Your task to perform on an android device: Go to notification settings Image 0: 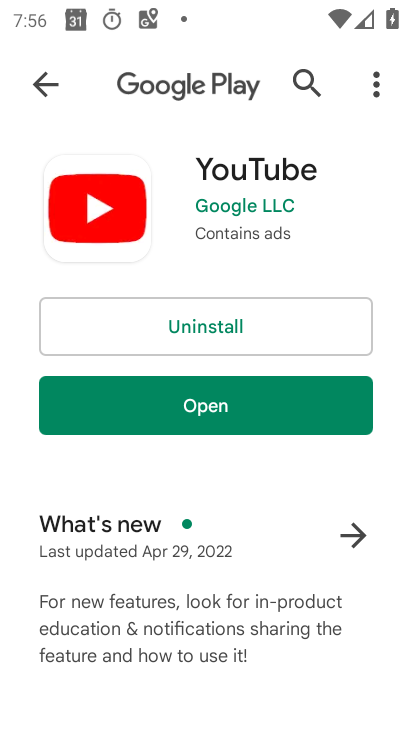
Step 0: press home button
Your task to perform on an android device: Go to notification settings Image 1: 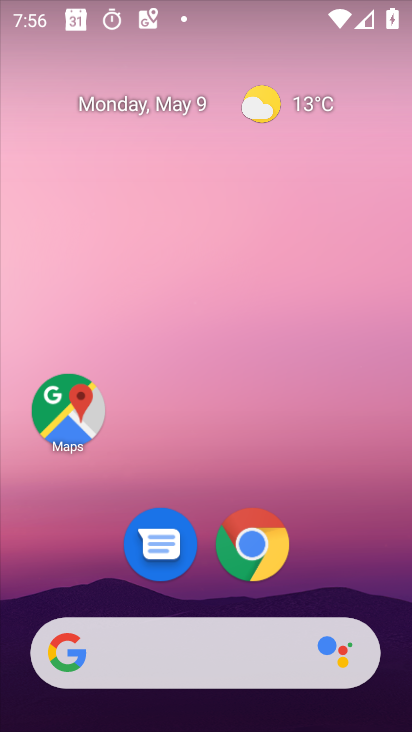
Step 1: drag from (340, 486) to (286, 41)
Your task to perform on an android device: Go to notification settings Image 2: 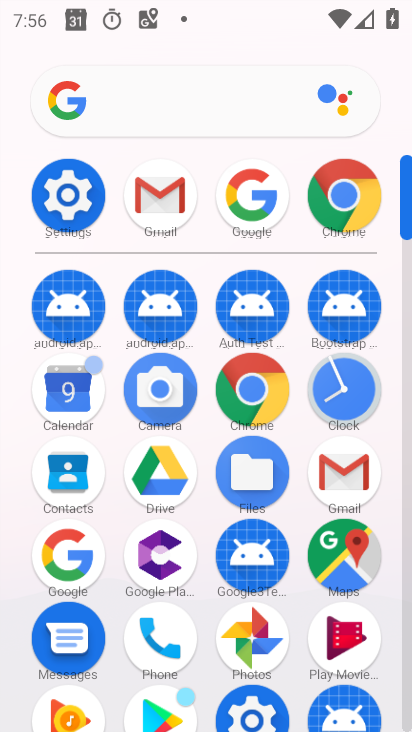
Step 2: click (84, 198)
Your task to perform on an android device: Go to notification settings Image 3: 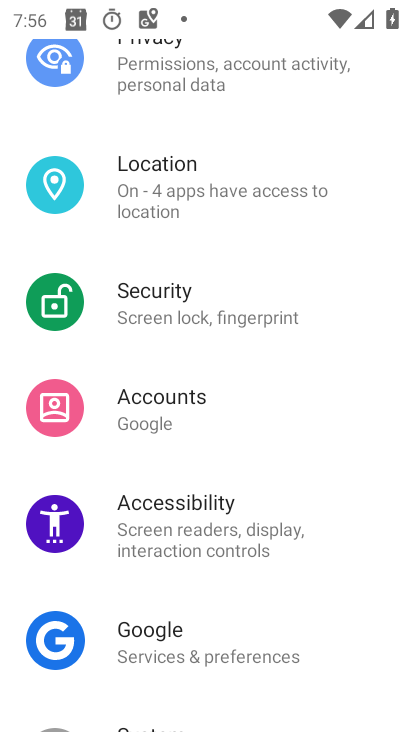
Step 3: drag from (174, 181) to (250, 517)
Your task to perform on an android device: Go to notification settings Image 4: 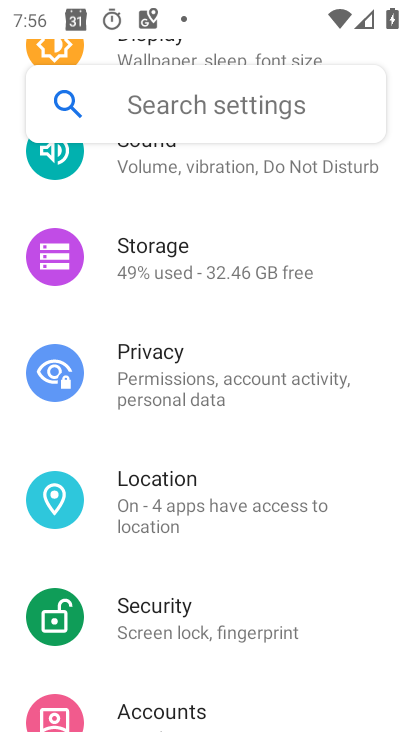
Step 4: drag from (252, 240) to (307, 648)
Your task to perform on an android device: Go to notification settings Image 5: 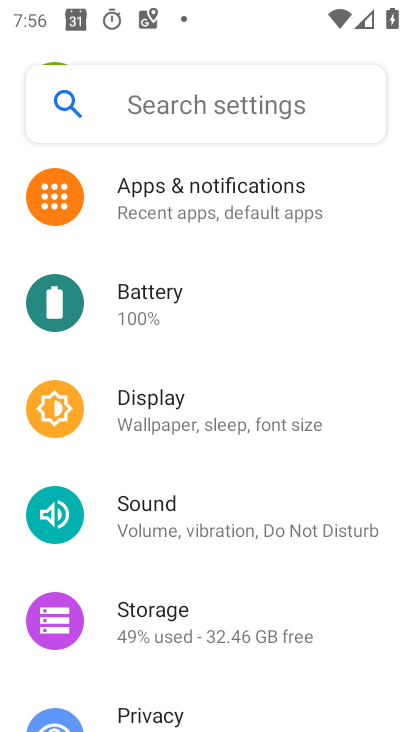
Step 5: click (256, 183)
Your task to perform on an android device: Go to notification settings Image 6: 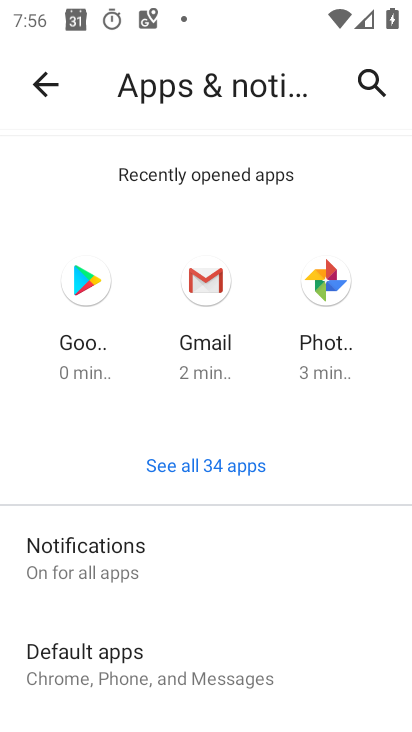
Step 6: click (103, 555)
Your task to perform on an android device: Go to notification settings Image 7: 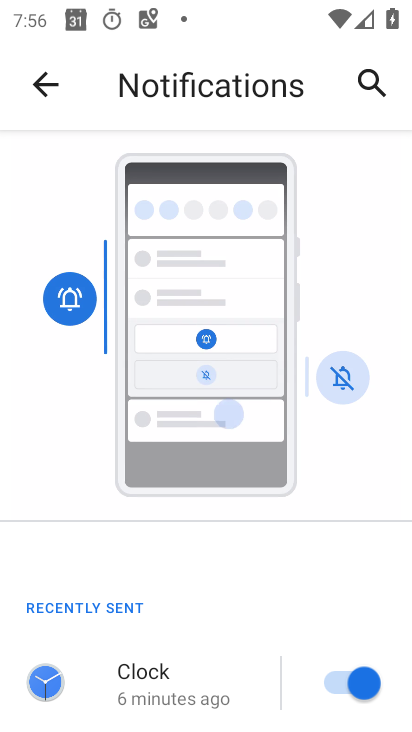
Step 7: task complete